Your task to perform on an android device: Open Google Image 0: 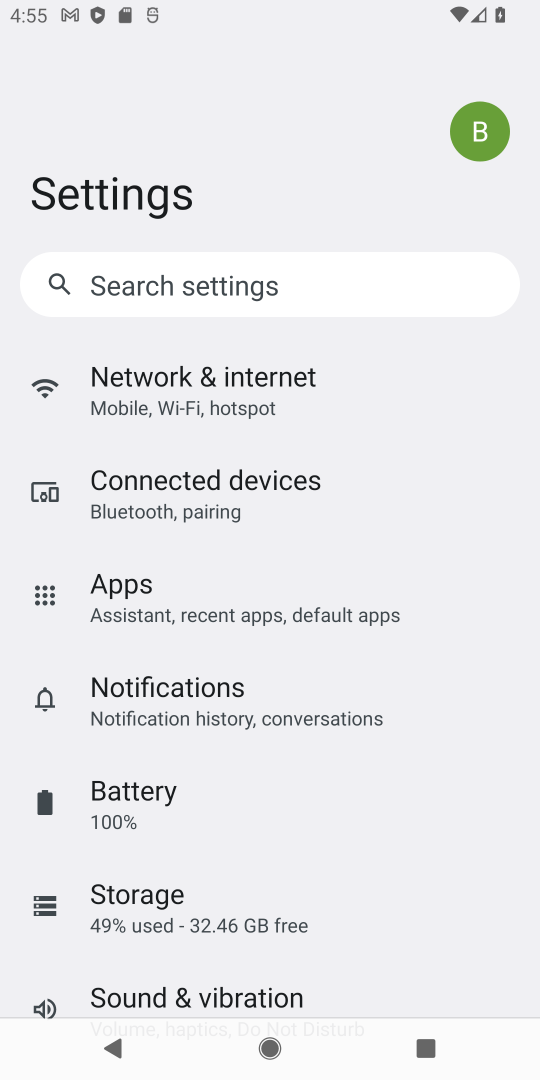
Step 0: press home button
Your task to perform on an android device: Open Google Image 1: 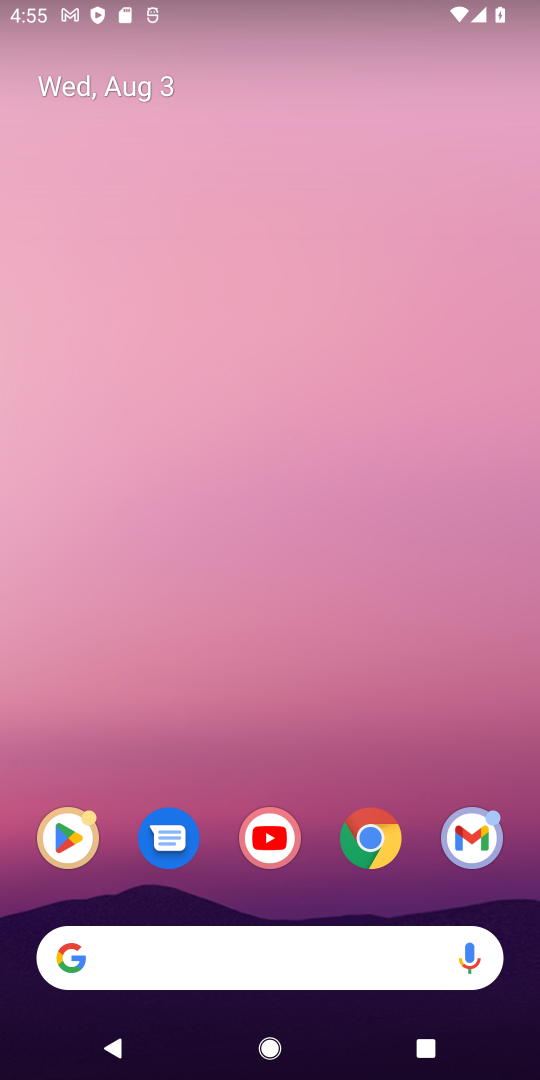
Step 1: drag from (227, 739) to (314, 0)
Your task to perform on an android device: Open Google Image 2: 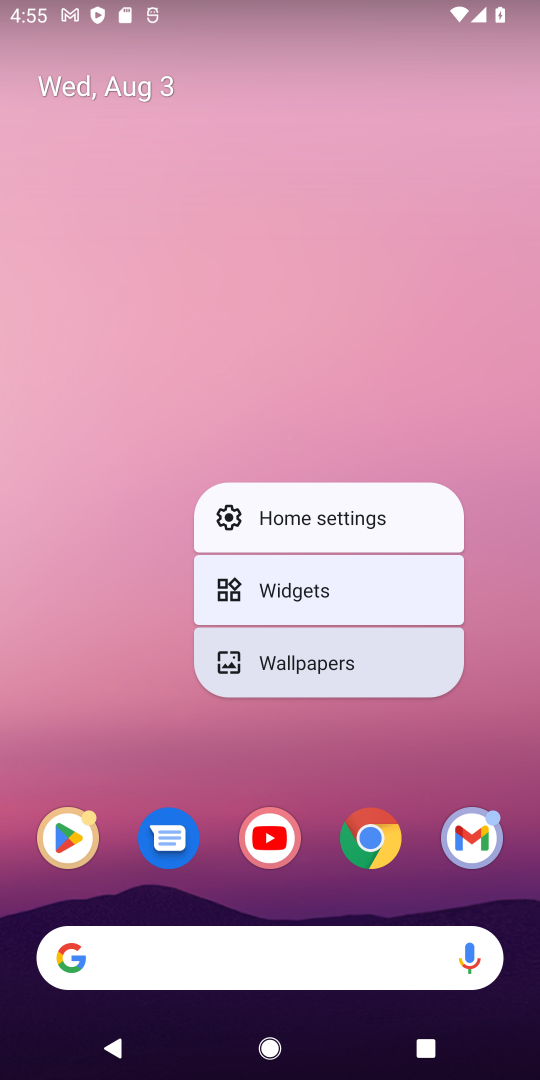
Step 2: click (148, 535)
Your task to perform on an android device: Open Google Image 3: 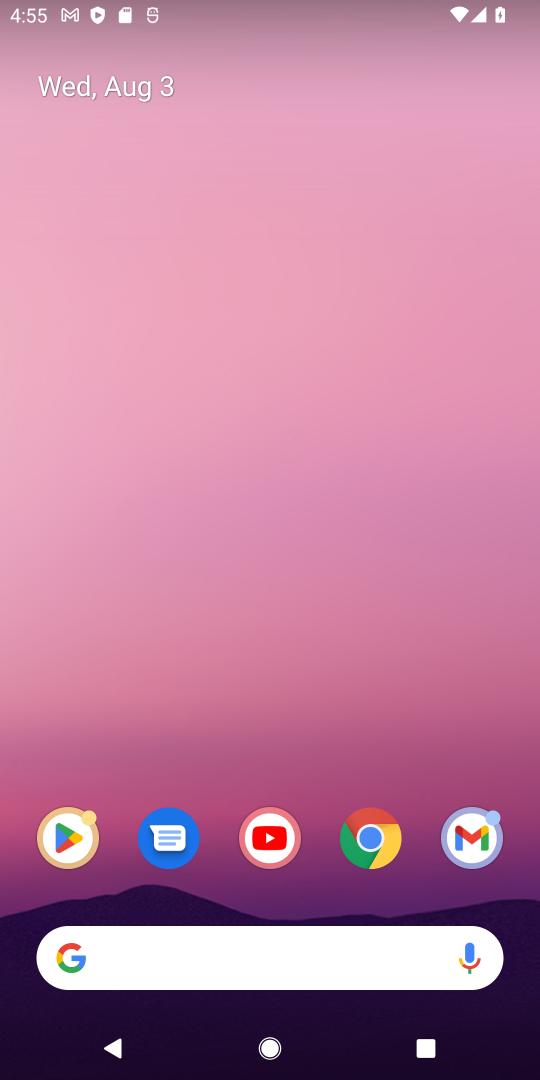
Step 3: drag from (304, 716) to (358, 4)
Your task to perform on an android device: Open Google Image 4: 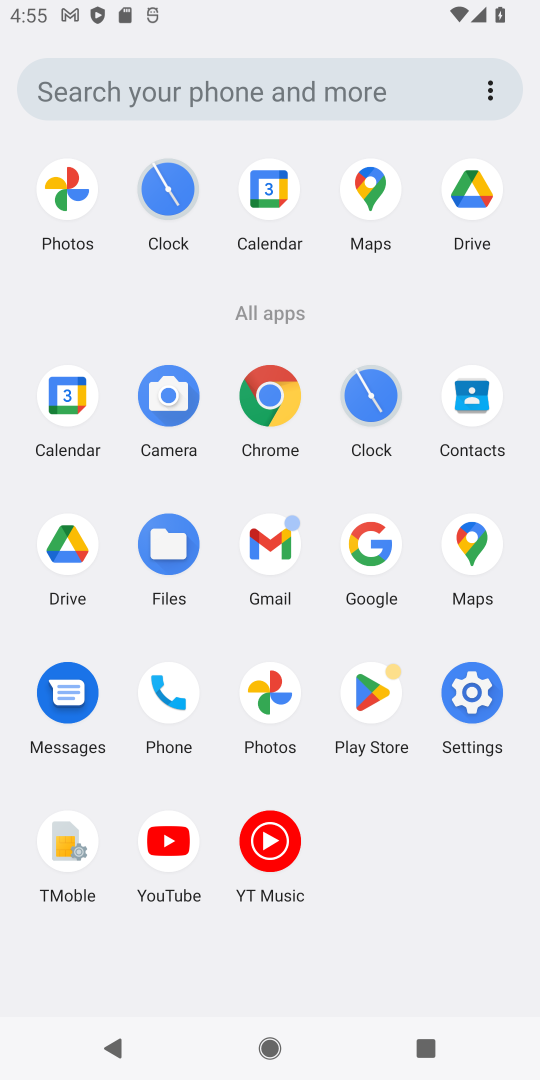
Step 4: click (370, 537)
Your task to perform on an android device: Open Google Image 5: 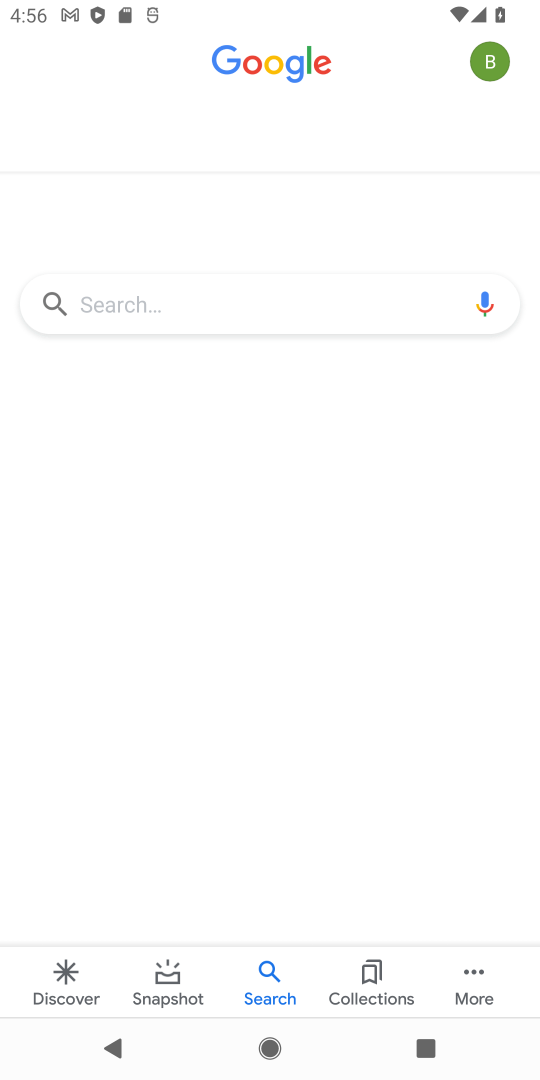
Step 5: task complete